Your task to perform on an android device: change notification settings in the gmail app Image 0: 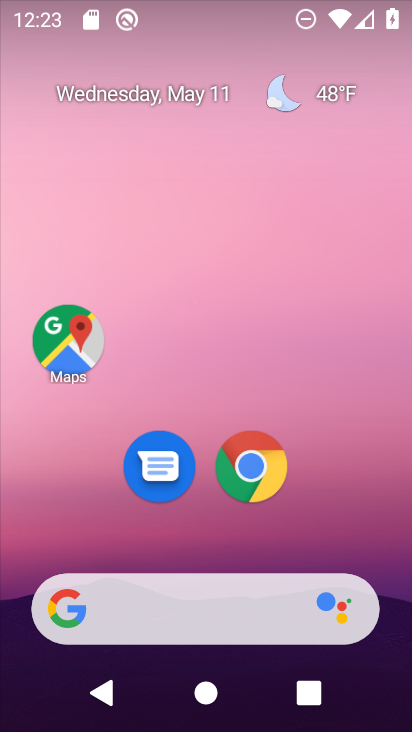
Step 0: drag from (211, 546) to (225, 34)
Your task to perform on an android device: change notification settings in the gmail app Image 1: 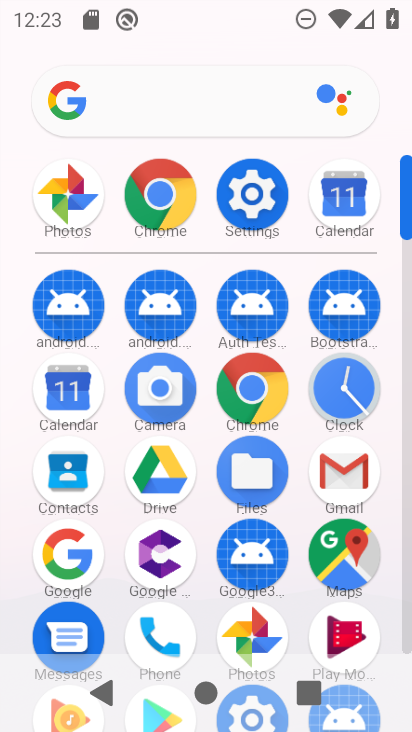
Step 1: click (340, 466)
Your task to perform on an android device: change notification settings in the gmail app Image 2: 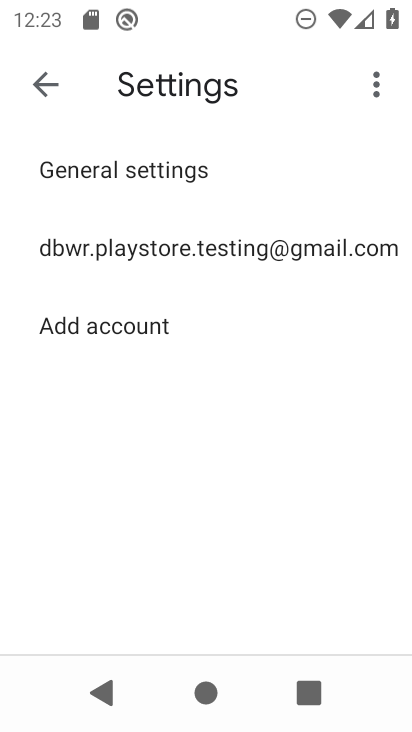
Step 2: click (213, 161)
Your task to perform on an android device: change notification settings in the gmail app Image 3: 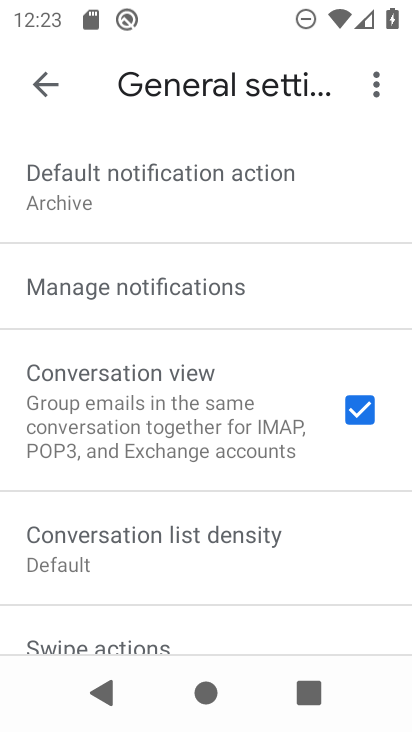
Step 3: click (224, 306)
Your task to perform on an android device: change notification settings in the gmail app Image 4: 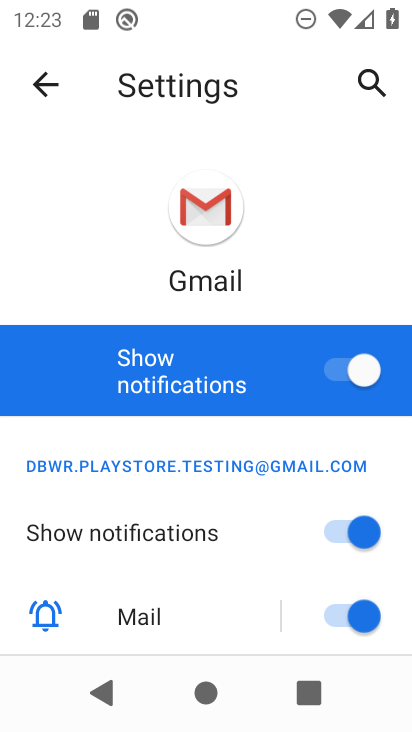
Step 4: click (341, 367)
Your task to perform on an android device: change notification settings in the gmail app Image 5: 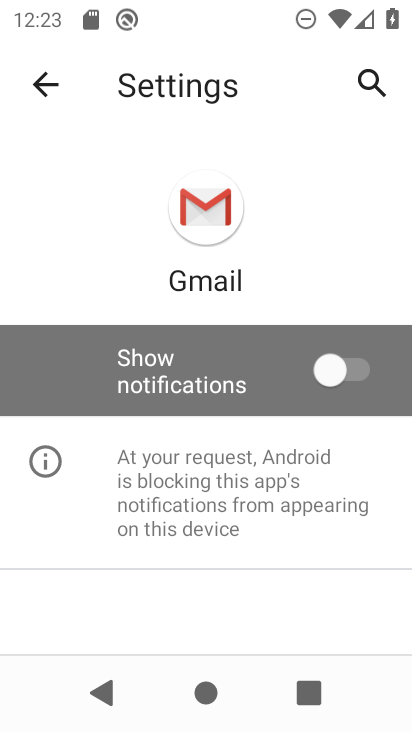
Step 5: task complete